Your task to perform on an android device: toggle notifications settings in the gmail app Image 0: 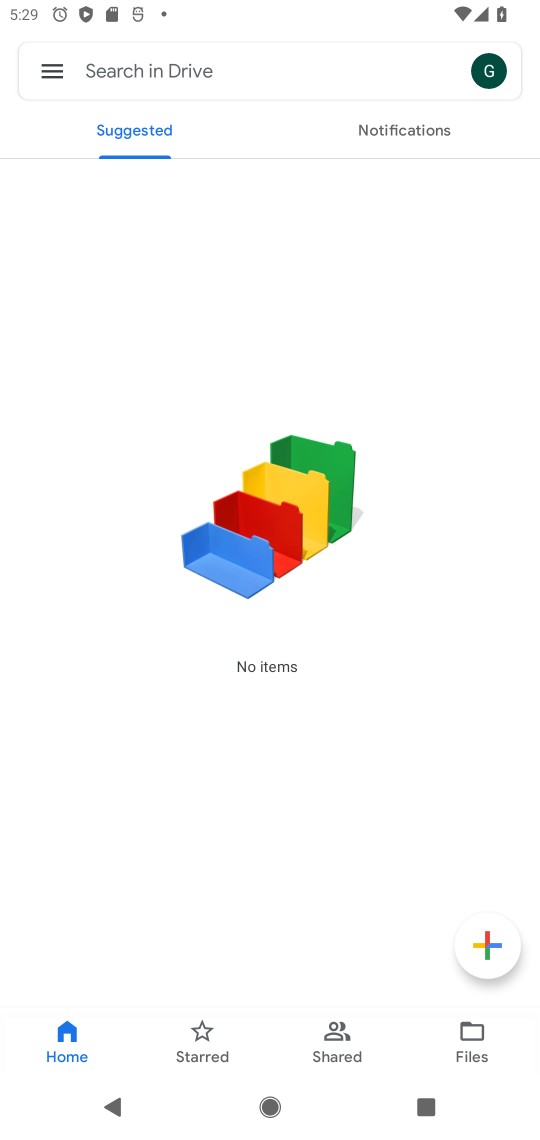
Step 0: press home button
Your task to perform on an android device: toggle notifications settings in the gmail app Image 1: 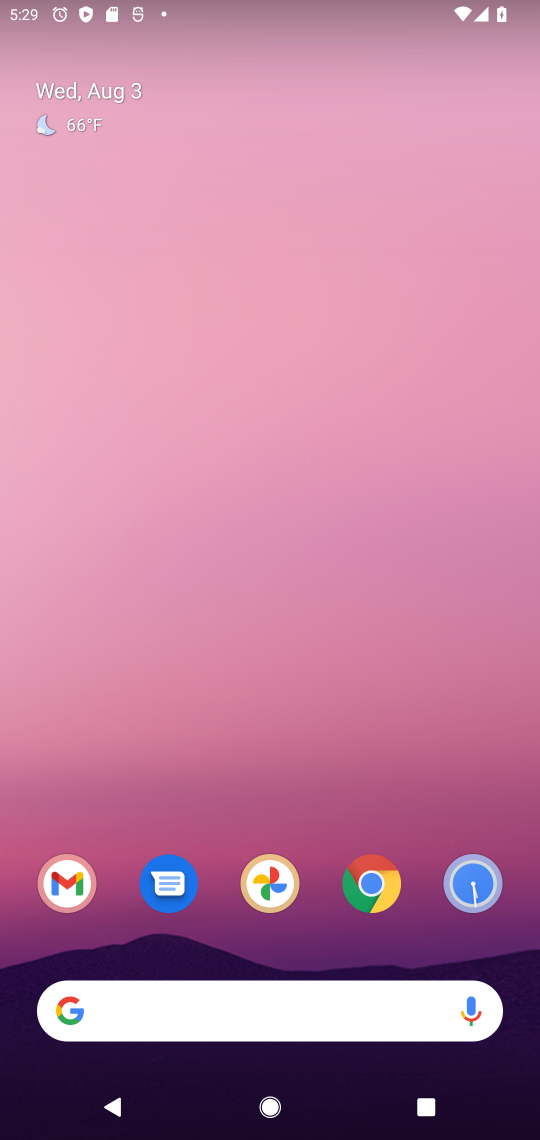
Step 1: click (71, 879)
Your task to perform on an android device: toggle notifications settings in the gmail app Image 2: 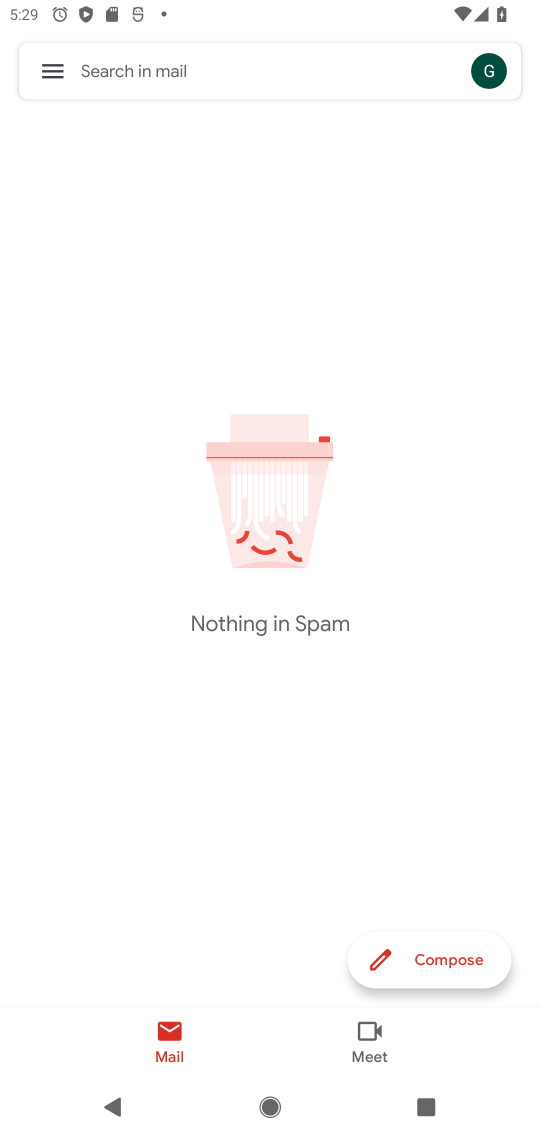
Step 2: click (46, 66)
Your task to perform on an android device: toggle notifications settings in the gmail app Image 3: 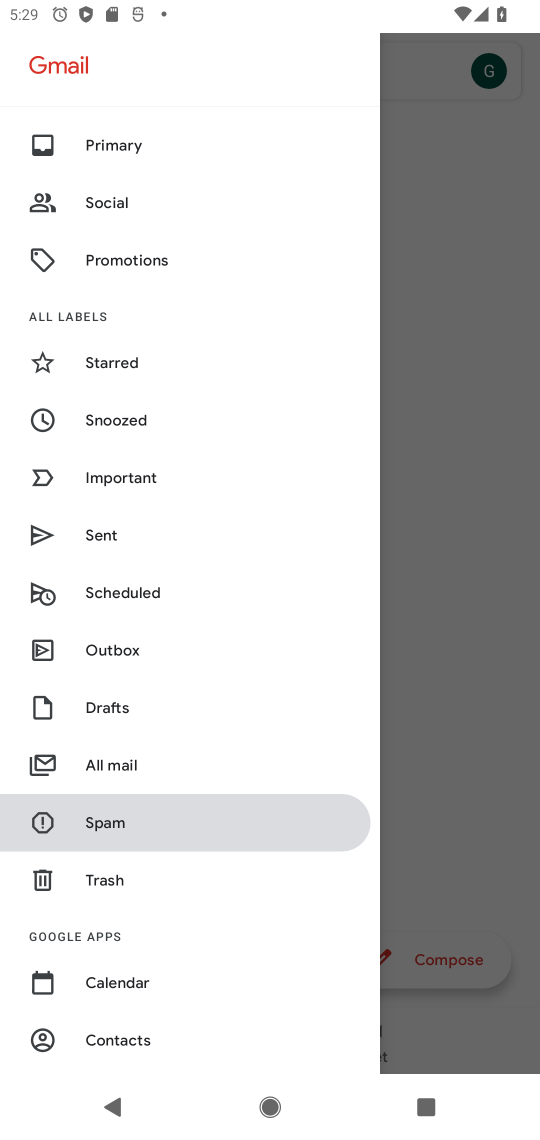
Step 3: drag from (107, 1005) to (110, 335)
Your task to perform on an android device: toggle notifications settings in the gmail app Image 4: 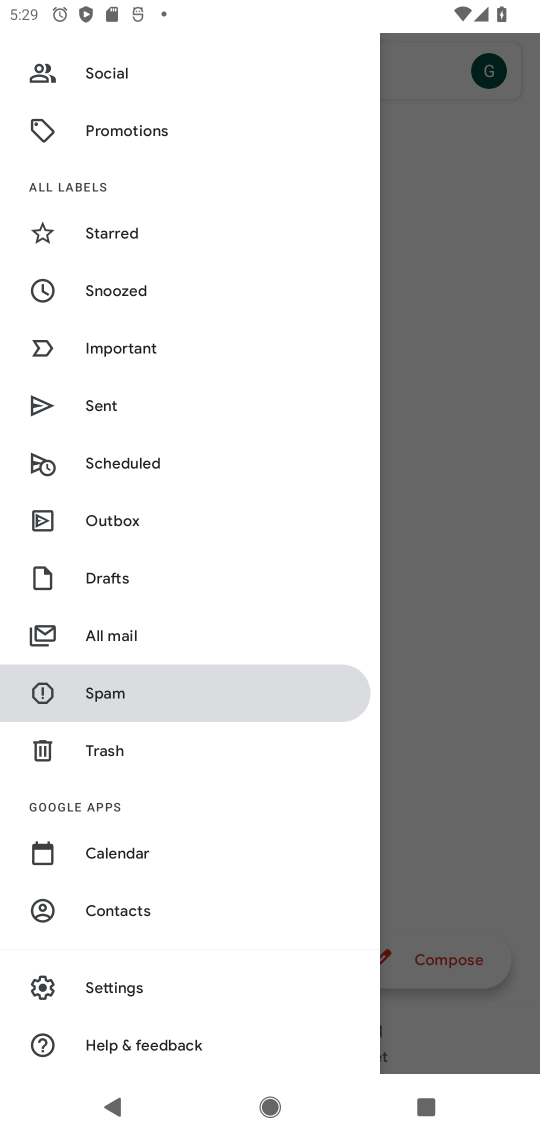
Step 4: click (93, 978)
Your task to perform on an android device: toggle notifications settings in the gmail app Image 5: 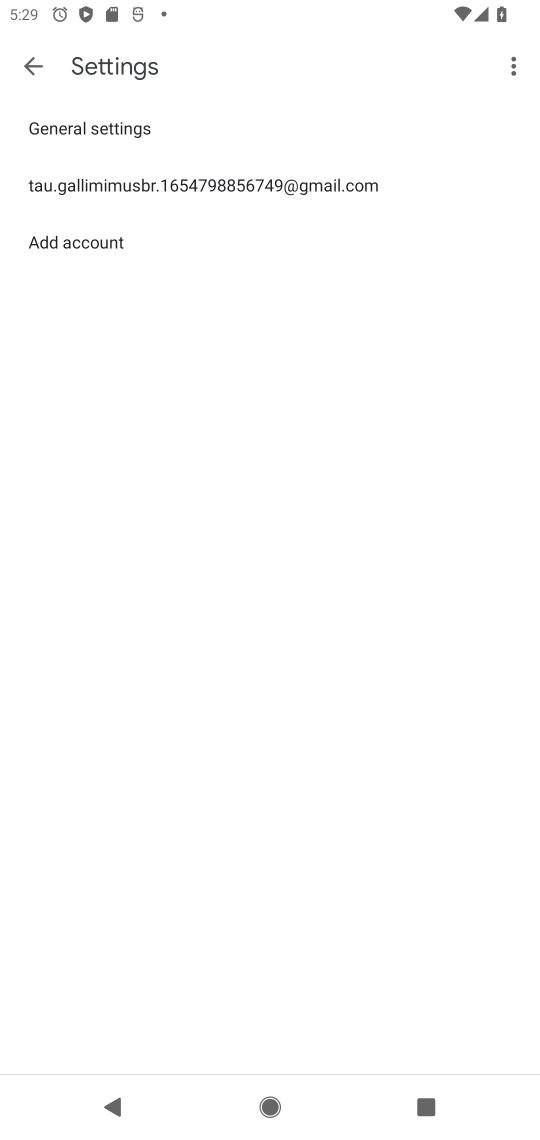
Step 5: click (103, 184)
Your task to perform on an android device: toggle notifications settings in the gmail app Image 6: 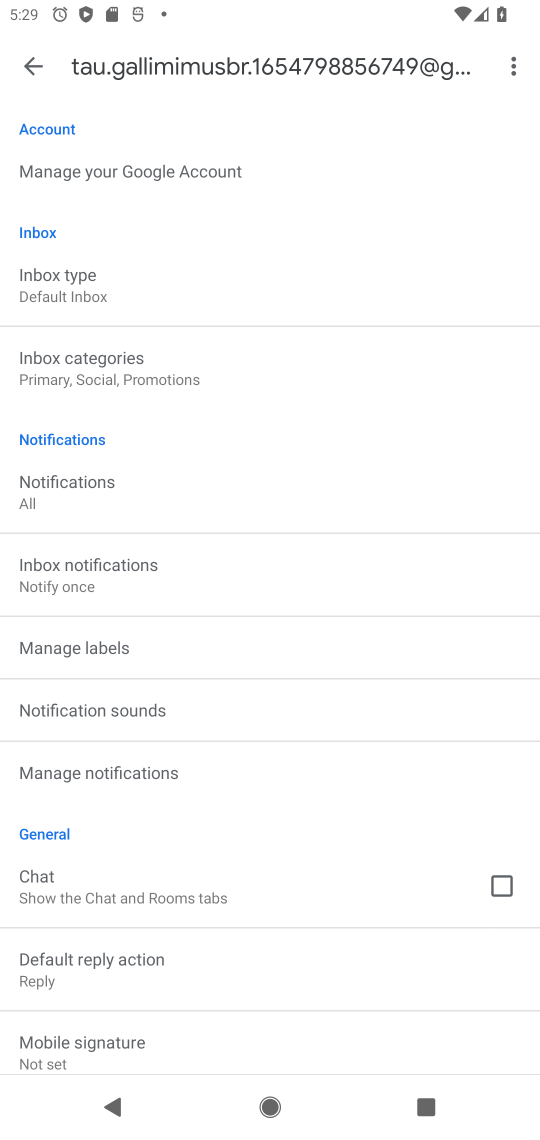
Step 6: click (112, 768)
Your task to perform on an android device: toggle notifications settings in the gmail app Image 7: 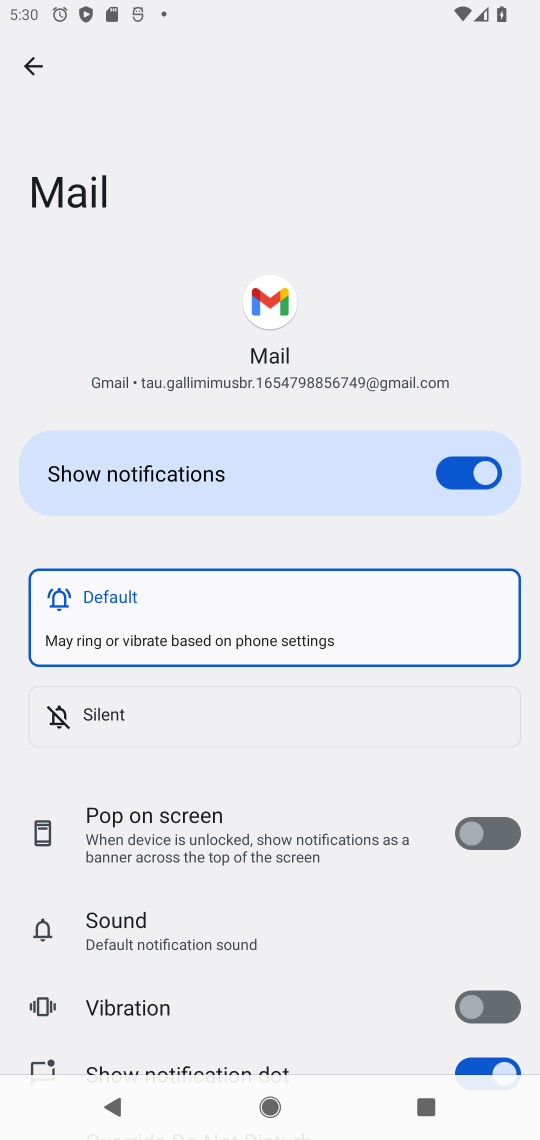
Step 7: click (468, 463)
Your task to perform on an android device: toggle notifications settings in the gmail app Image 8: 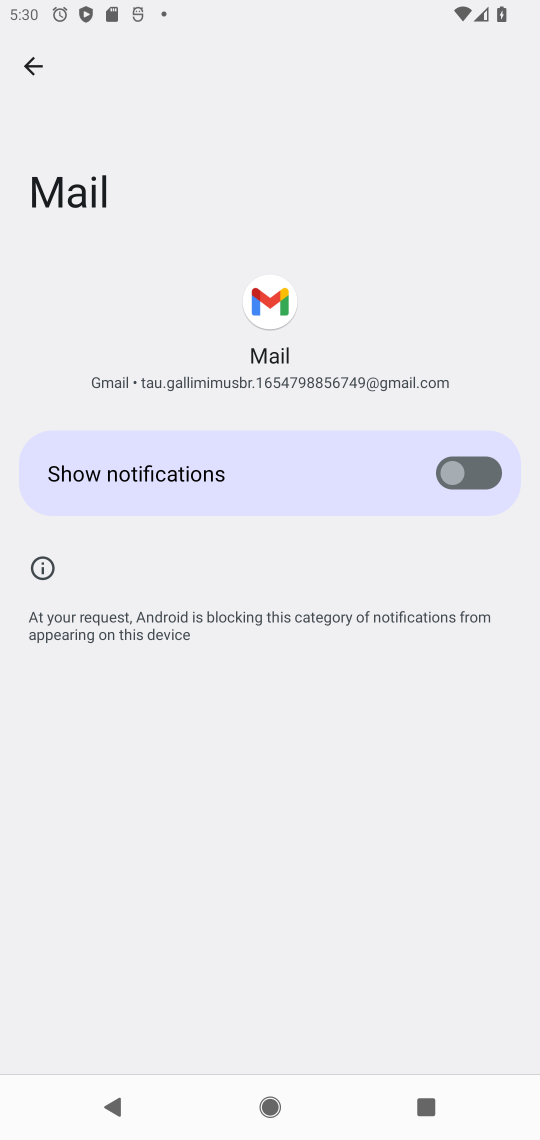
Step 8: task complete